Your task to perform on an android device: turn on showing notifications on the lock screen Image 0: 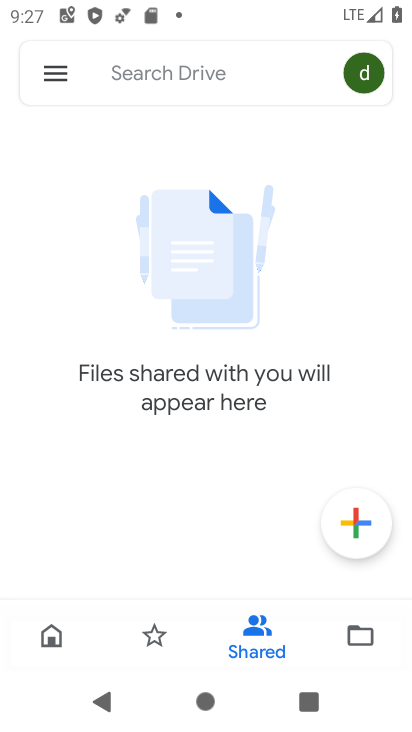
Step 0: press home button
Your task to perform on an android device: turn on showing notifications on the lock screen Image 1: 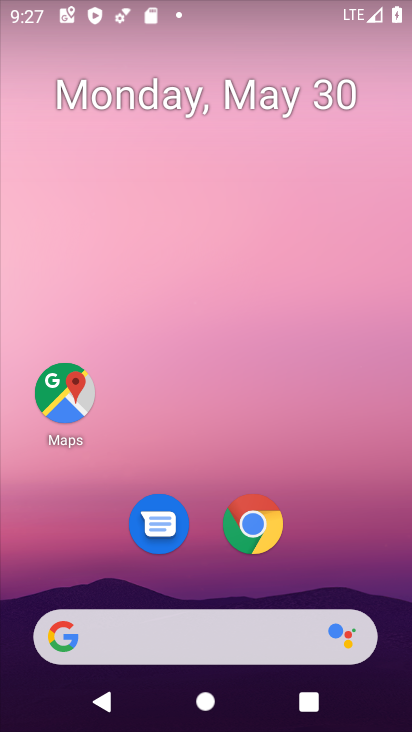
Step 1: drag from (318, 529) to (298, 30)
Your task to perform on an android device: turn on showing notifications on the lock screen Image 2: 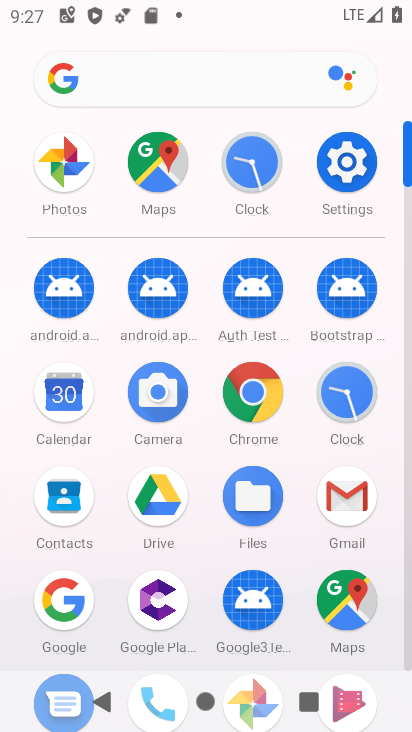
Step 2: click (338, 162)
Your task to perform on an android device: turn on showing notifications on the lock screen Image 3: 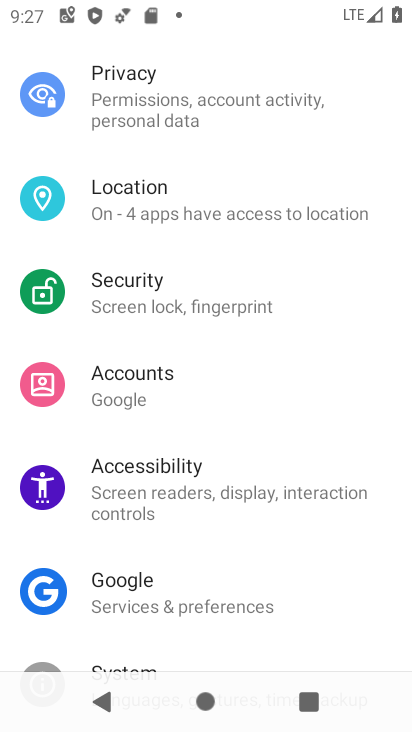
Step 3: drag from (245, 249) to (253, 626)
Your task to perform on an android device: turn on showing notifications on the lock screen Image 4: 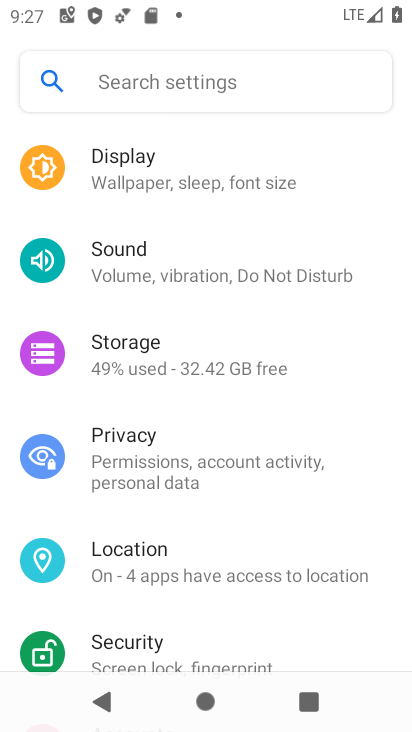
Step 4: drag from (240, 235) to (267, 580)
Your task to perform on an android device: turn on showing notifications on the lock screen Image 5: 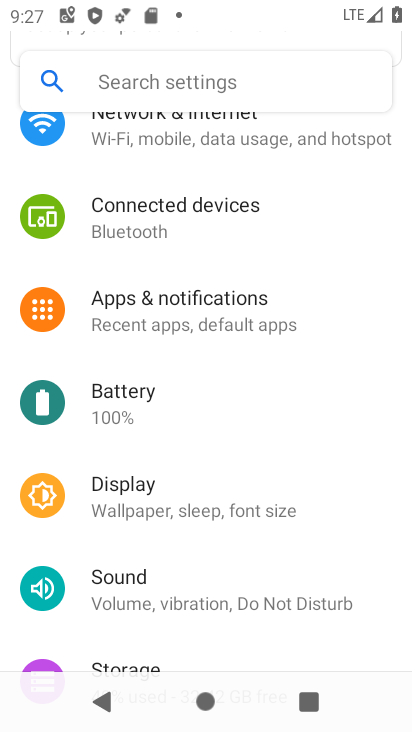
Step 5: click (205, 305)
Your task to perform on an android device: turn on showing notifications on the lock screen Image 6: 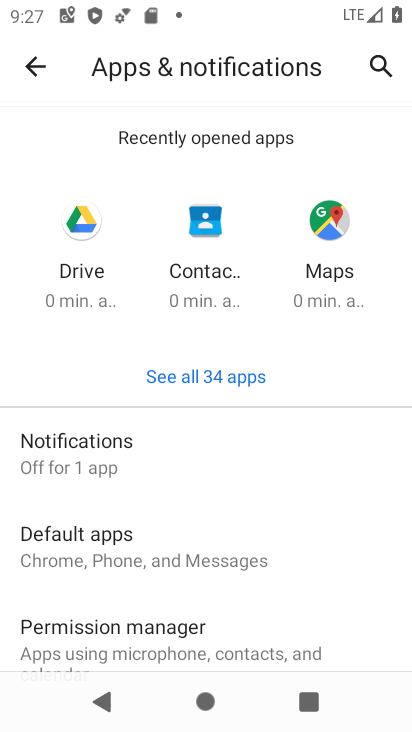
Step 6: click (122, 453)
Your task to perform on an android device: turn on showing notifications on the lock screen Image 7: 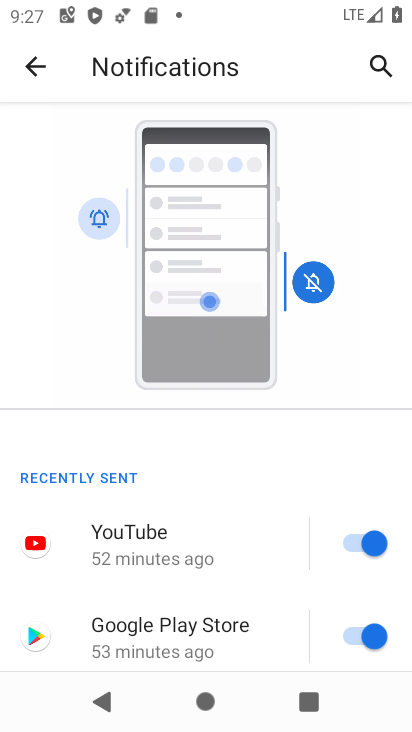
Step 7: task complete